Your task to perform on an android device: Open maps Image 0: 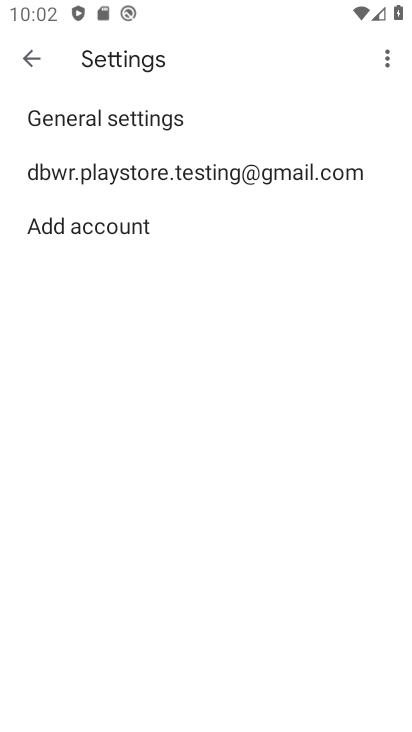
Step 0: press home button
Your task to perform on an android device: Open maps Image 1: 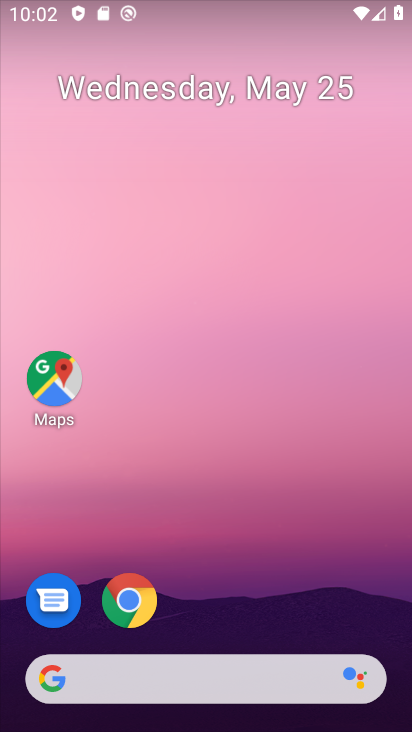
Step 1: click (63, 395)
Your task to perform on an android device: Open maps Image 2: 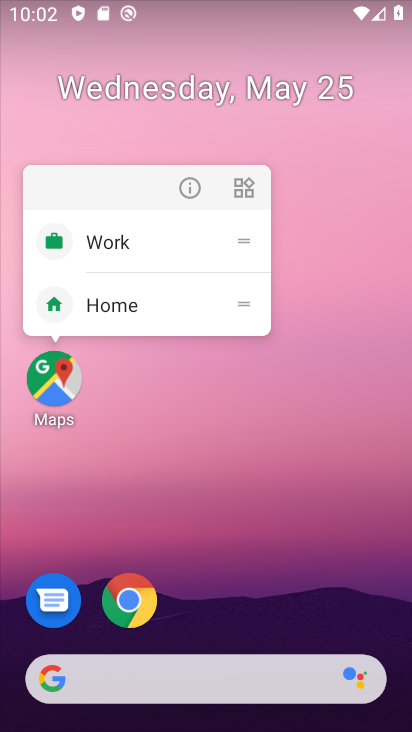
Step 2: click (63, 387)
Your task to perform on an android device: Open maps Image 3: 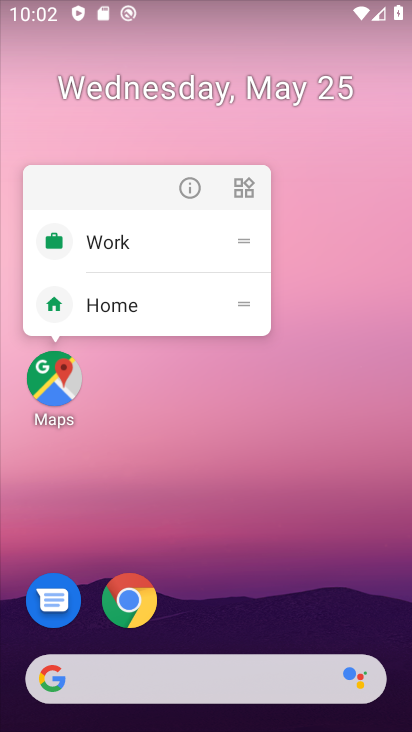
Step 3: click (55, 379)
Your task to perform on an android device: Open maps Image 4: 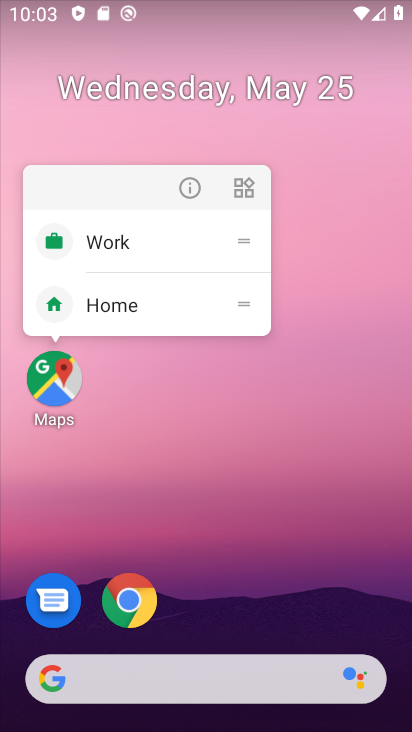
Step 4: click (50, 391)
Your task to perform on an android device: Open maps Image 5: 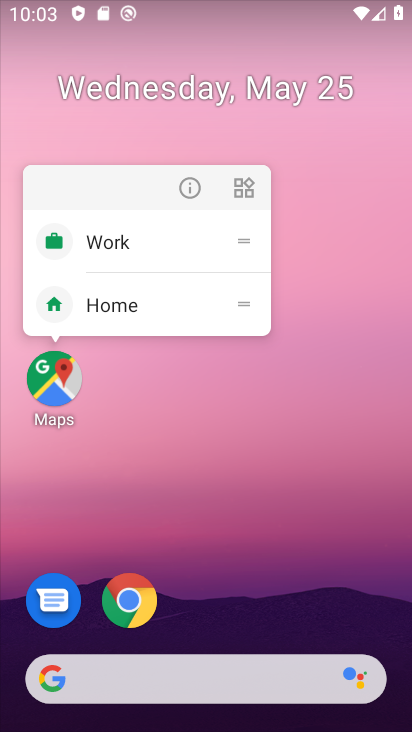
Step 5: click (54, 381)
Your task to perform on an android device: Open maps Image 6: 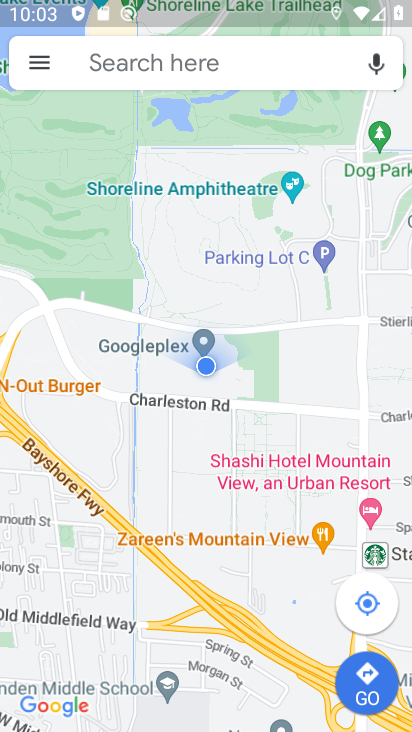
Step 6: task complete